Your task to perform on an android device: turn on the 12-hour format for clock Image 0: 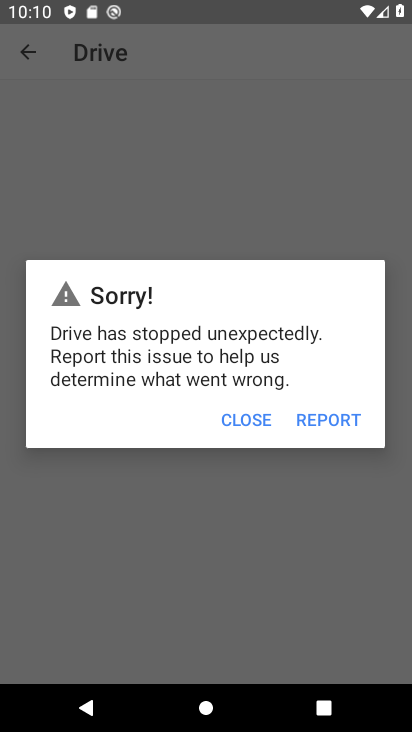
Step 0: drag from (166, 673) to (170, 123)
Your task to perform on an android device: turn on the 12-hour format for clock Image 1: 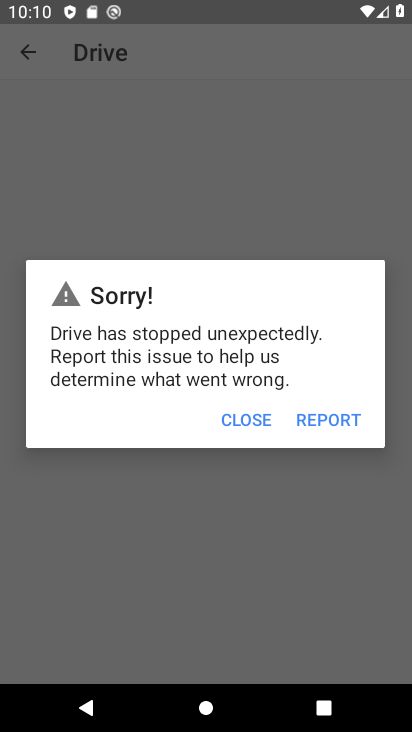
Step 1: press home button
Your task to perform on an android device: turn on the 12-hour format for clock Image 2: 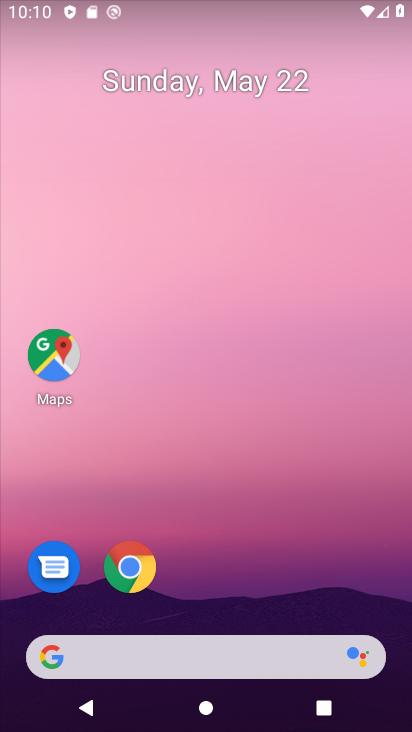
Step 2: drag from (165, 641) to (187, 33)
Your task to perform on an android device: turn on the 12-hour format for clock Image 3: 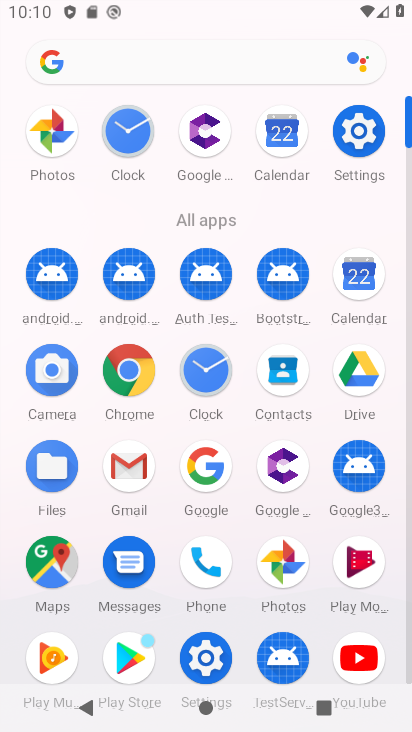
Step 3: click (371, 139)
Your task to perform on an android device: turn on the 12-hour format for clock Image 4: 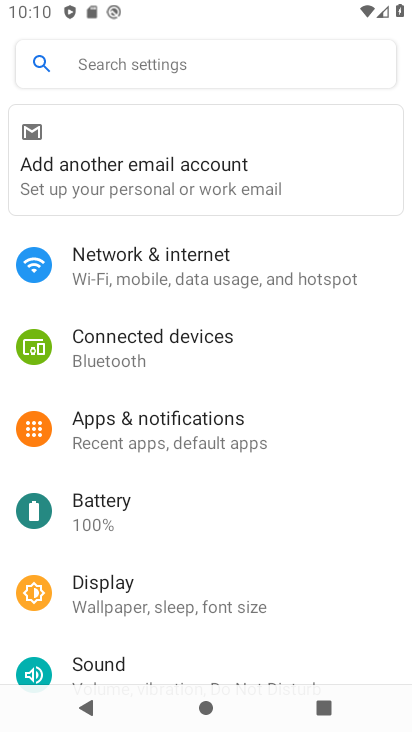
Step 4: drag from (121, 613) to (127, 68)
Your task to perform on an android device: turn on the 12-hour format for clock Image 5: 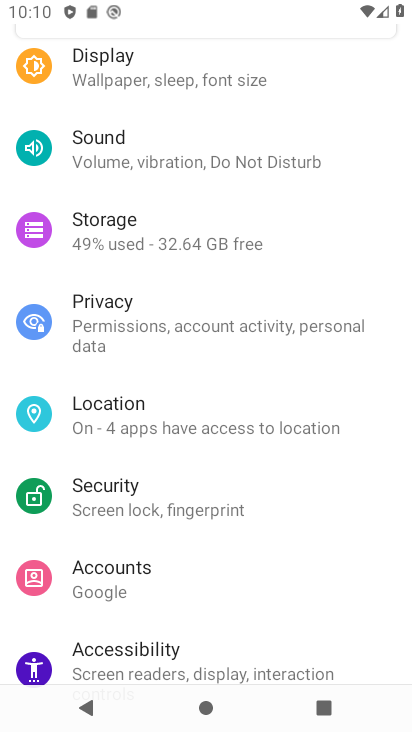
Step 5: drag from (95, 616) to (129, 198)
Your task to perform on an android device: turn on the 12-hour format for clock Image 6: 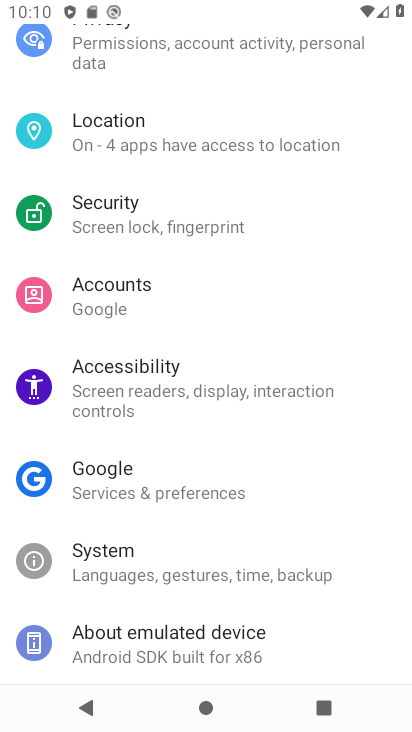
Step 6: click (144, 571)
Your task to perform on an android device: turn on the 12-hour format for clock Image 7: 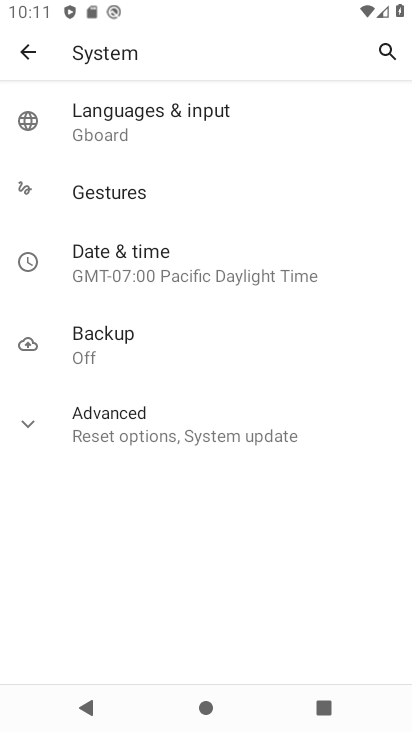
Step 7: click (132, 261)
Your task to perform on an android device: turn on the 12-hour format for clock Image 8: 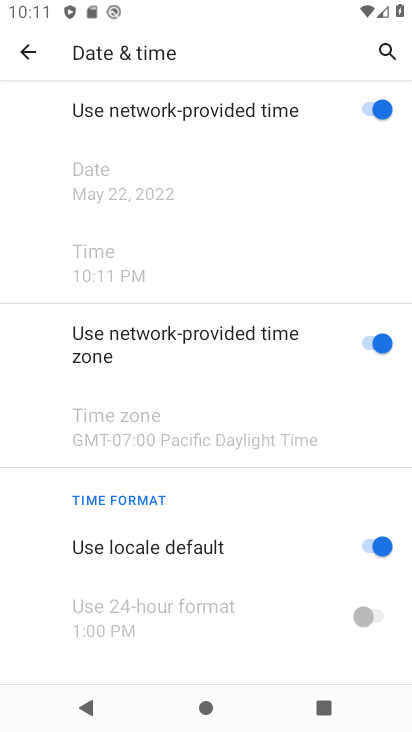
Step 8: task complete